Your task to perform on an android device: open device folders in google photos Image 0: 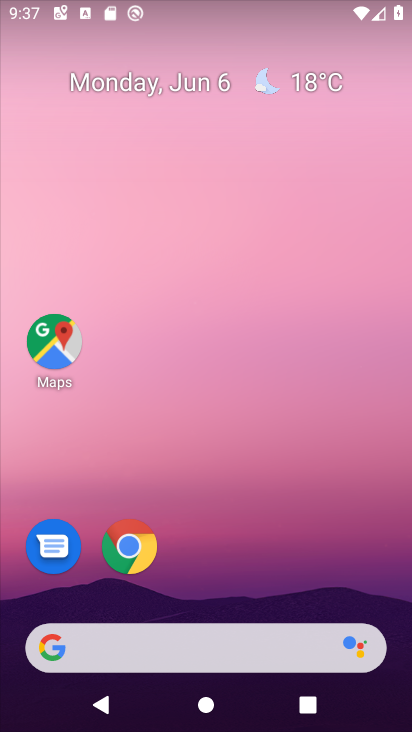
Step 0: drag from (355, 592) to (270, 28)
Your task to perform on an android device: open device folders in google photos Image 1: 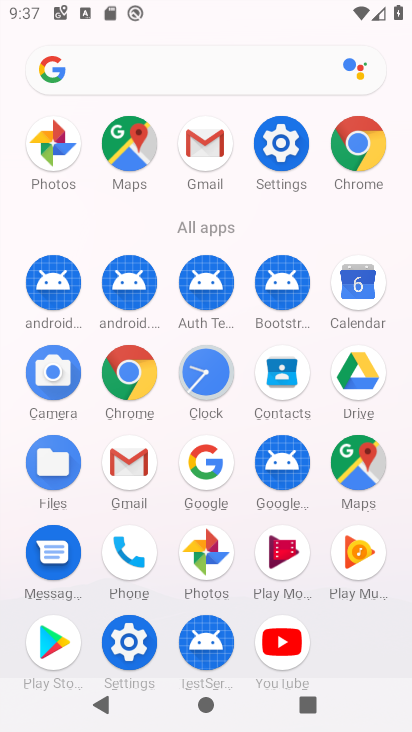
Step 1: click (205, 551)
Your task to perform on an android device: open device folders in google photos Image 2: 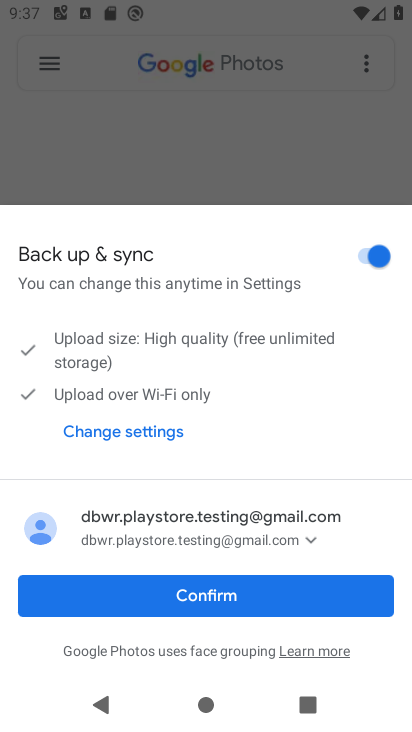
Step 2: click (209, 585)
Your task to perform on an android device: open device folders in google photos Image 3: 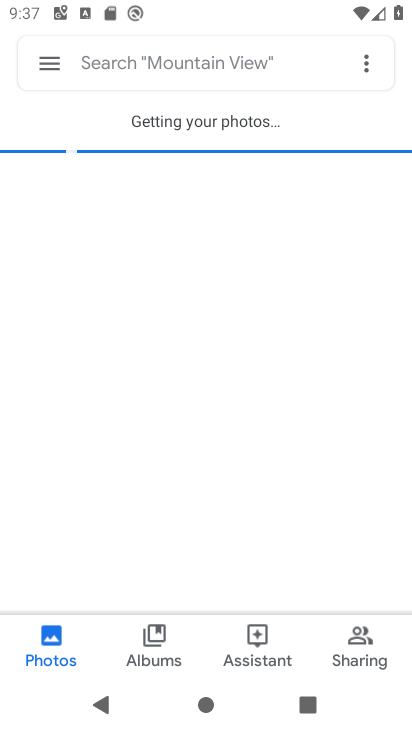
Step 3: click (47, 61)
Your task to perform on an android device: open device folders in google photos Image 4: 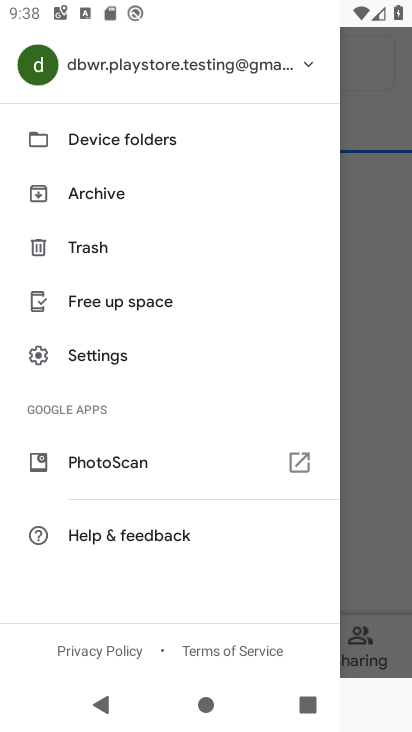
Step 4: click (118, 146)
Your task to perform on an android device: open device folders in google photos Image 5: 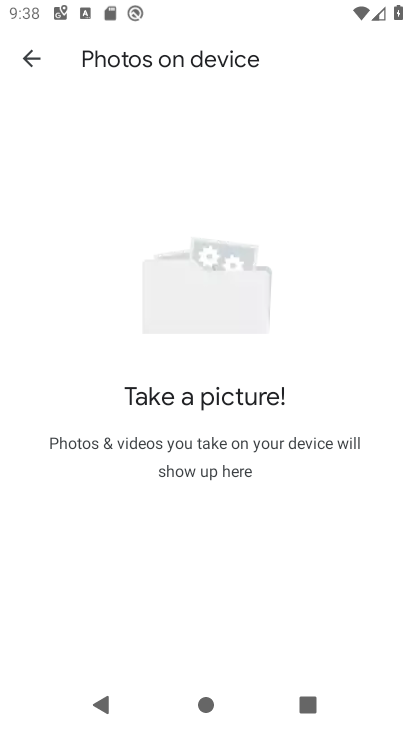
Step 5: task complete